Your task to perform on an android device: Open CNN.com Image 0: 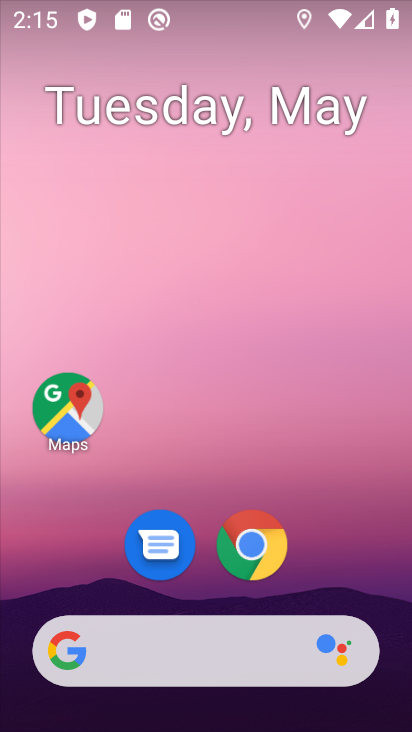
Step 0: click (237, 663)
Your task to perform on an android device: Open CNN.com Image 1: 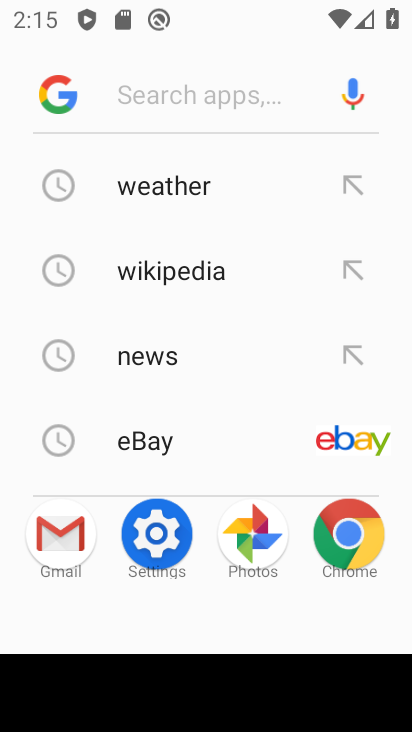
Step 1: type "CNN.com"
Your task to perform on an android device: Open CNN.com Image 2: 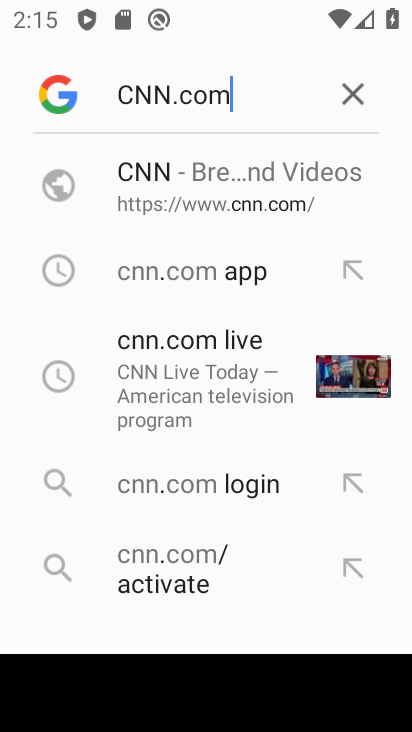
Step 2: click (209, 192)
Your task to perform on an android device: Open CNN.com Image 3: 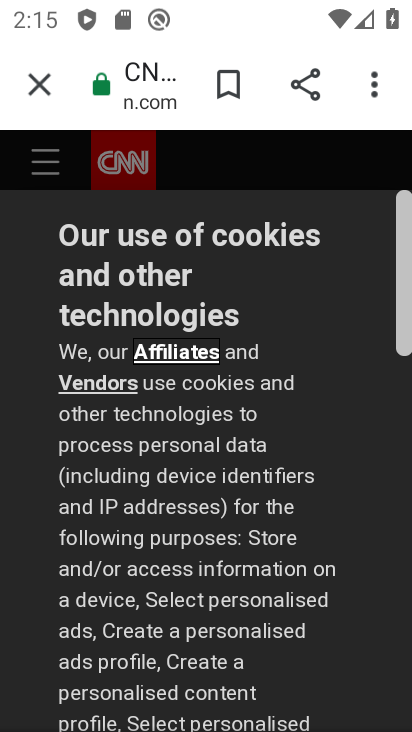
Step 3: task complete